Your task to perform on an android device: Open settings on Google Maps Image 0: 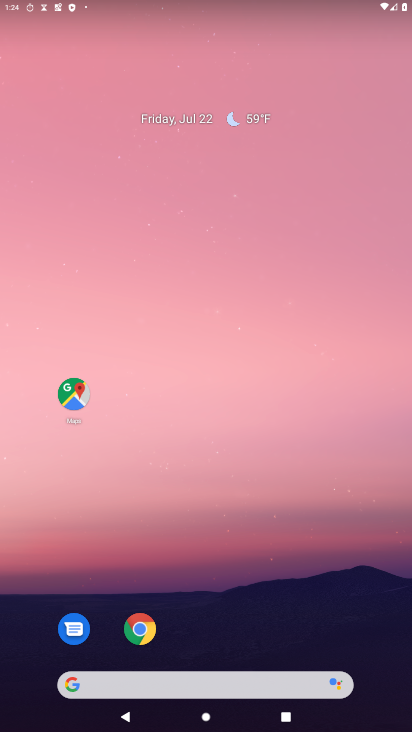
Step 0: drag from (160, 569) to (170, 1)
Your task to perform on an android device: Open settings on Google Maps Image 1: 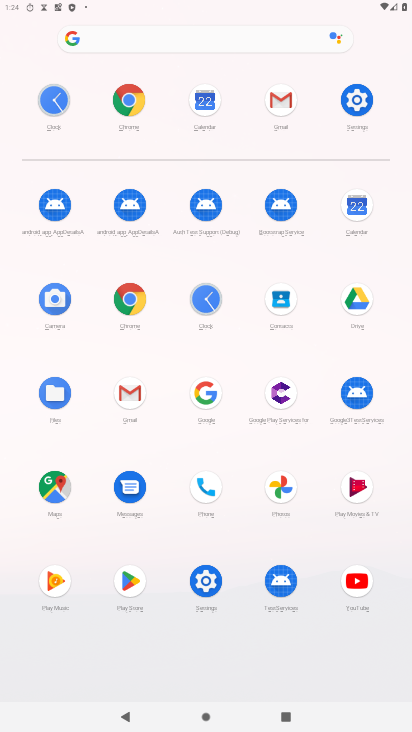
Step 1: click (287, 493)
Your task to perform on an android device: Open settings on Google Maps Image 2: 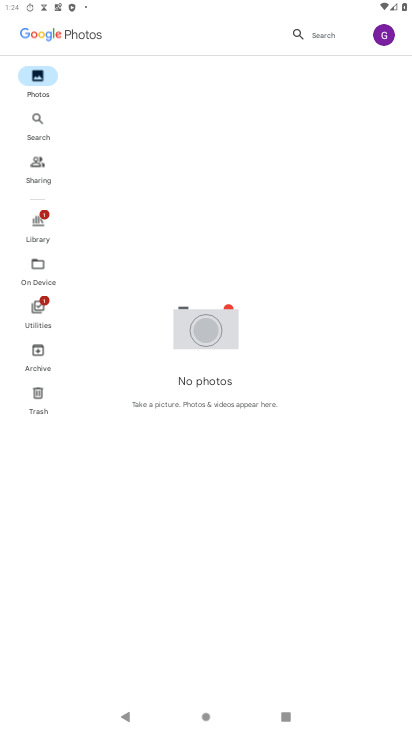
Step 2: click (385, 43)
Your task to perform on an android device: Open settings on Google Maps Image 3: 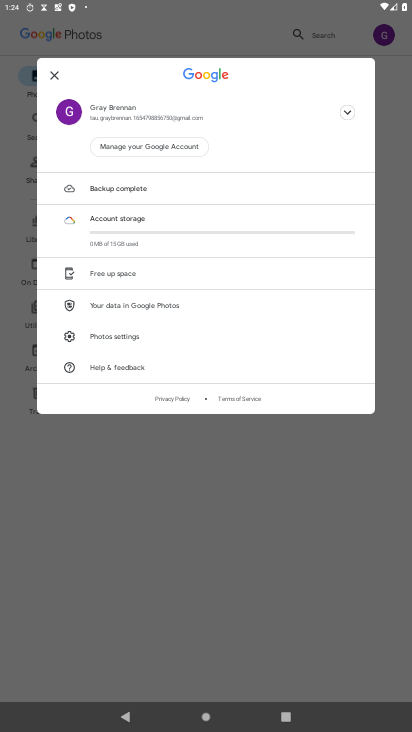
Step 3: click (137, 332)
Your task to perform on an android device: Open settings on Google Maps Image 4: 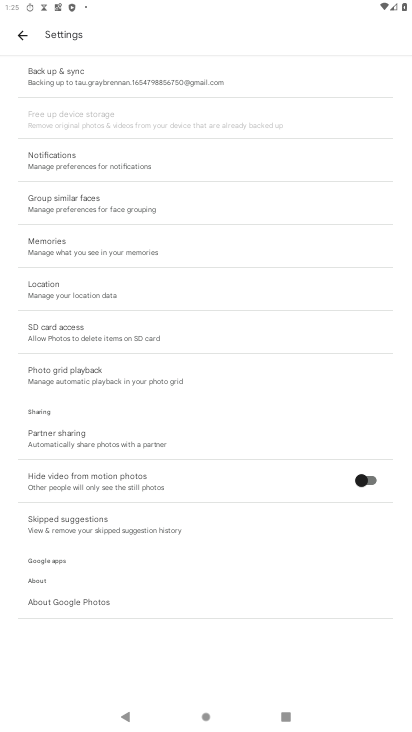
Step 4: press home button
Your task to perform on an android device: Open settings on Google Maps Image 5: 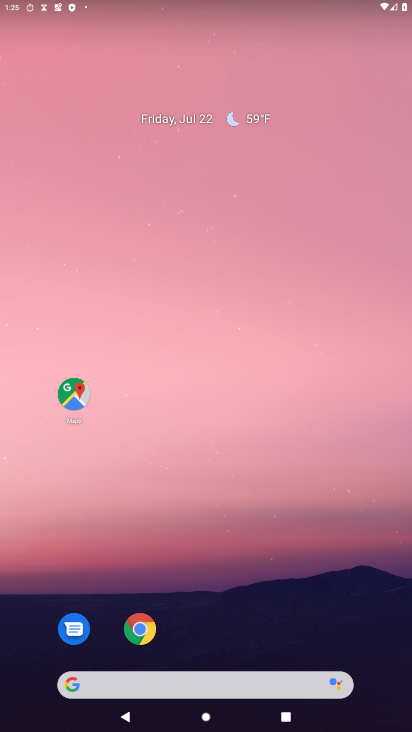
Step 5: drag from (139, 675) to (235, 9)
Your task to perform on an android device: Open settings on Google Maps Image 6: 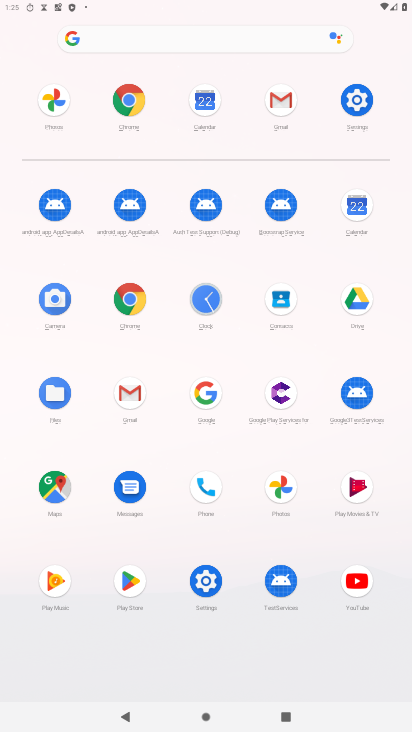
Step 6: click (58, 477)
Your task to perform on an android device: Open settings on Google Maps Image 7: 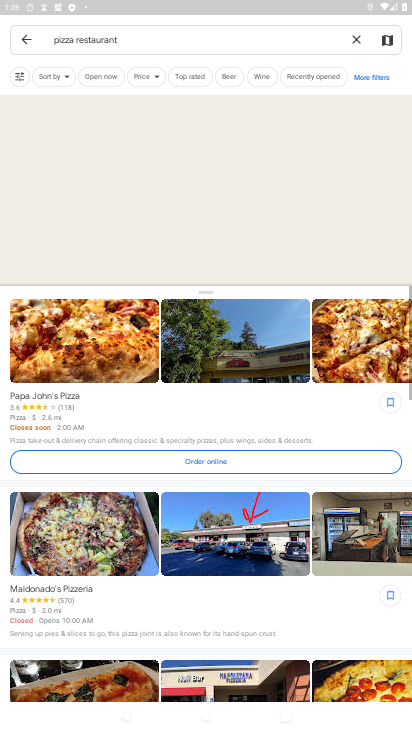
Step 7: press back button
Your task to perform on an android device: Open settings on Google Maps Image 8: 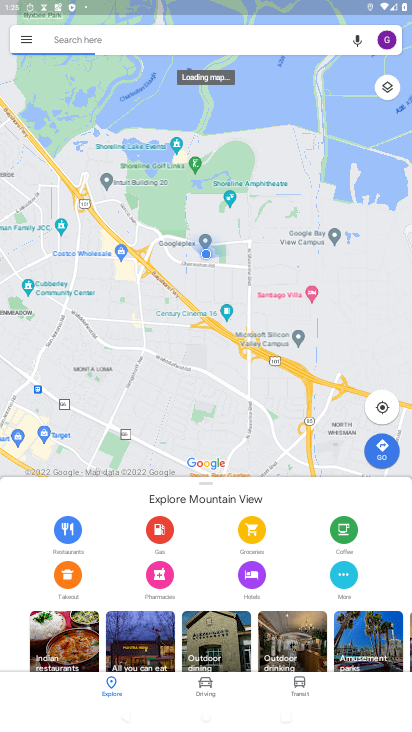
Step 8: click (25, 32)
Your task to perform on an android device: Open settings on Google Maps Image 9: 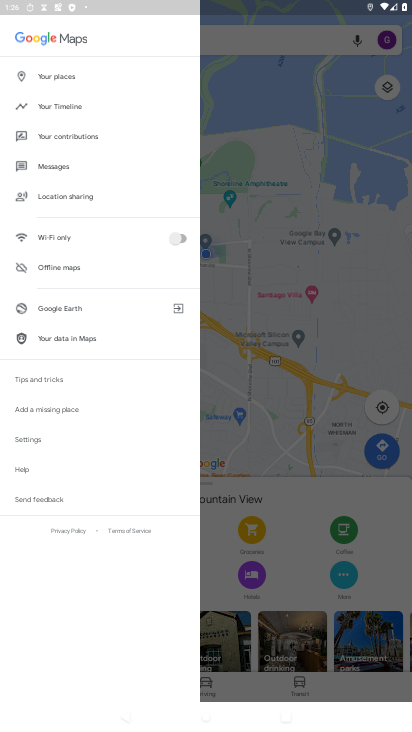
Step 9: click (36, 439)
Your task to perform on an android device: Open settings on Google Maps Image 10: 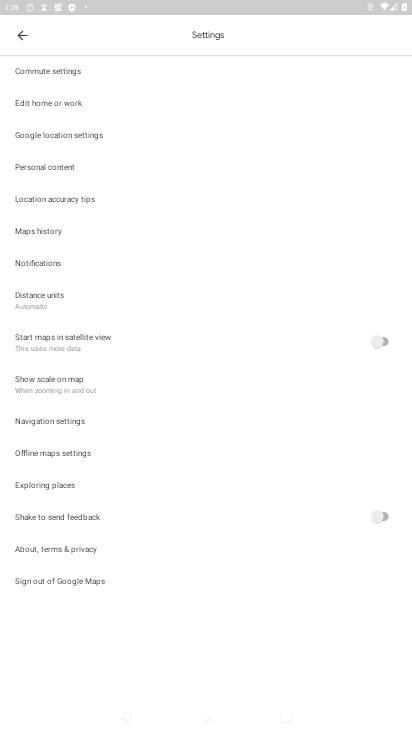
Step 10: task complete